Your task to perform on an android device: Go to notification settings Image 0: 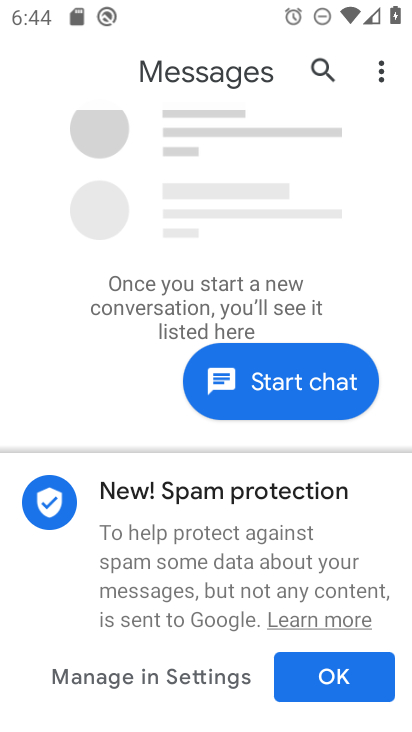
Step 0: press home button
Your task to perform on an android device: Go to notification settings Image 1: 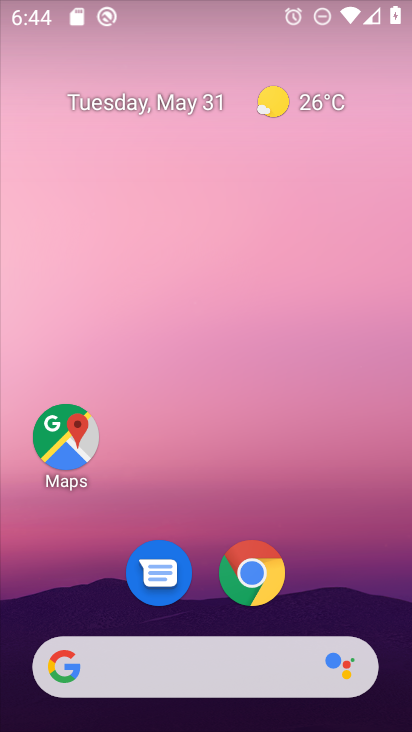
Step 1: drag from (395, 690) to (305, 22)
Your task to perform on an android device: Go to notification settings Image 2: 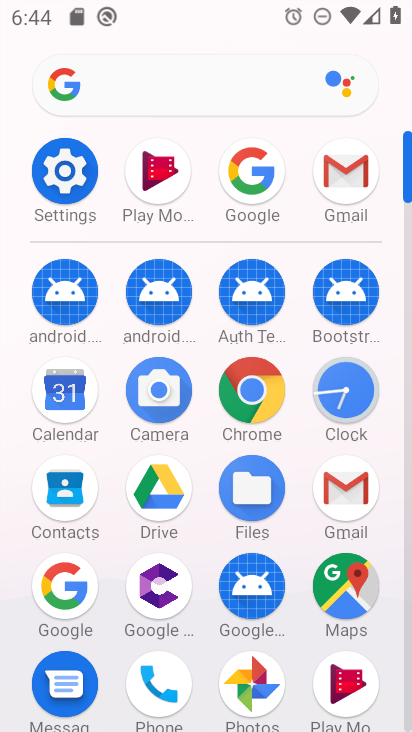
Step 2: click (47, 174)
Your task to perform on an android device: Go to notification settings Image 3: 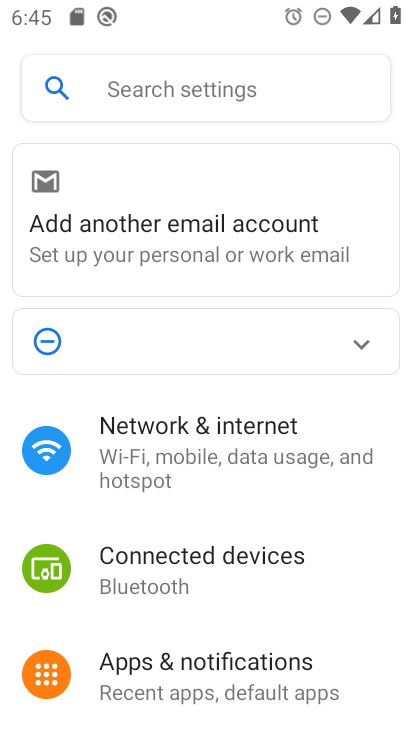
Step 3: click (259, 656)
Your task to perform on an android device: Go to notification settings Image 4: 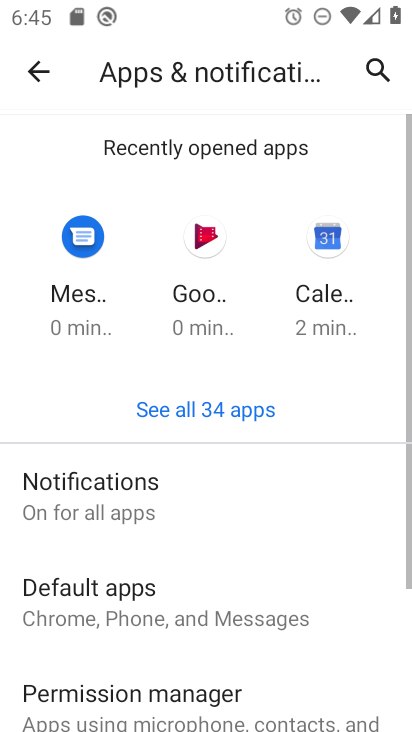
Step 4: click (223, 514)
Your task to perform on an android device: Go to notification settings Image 5: 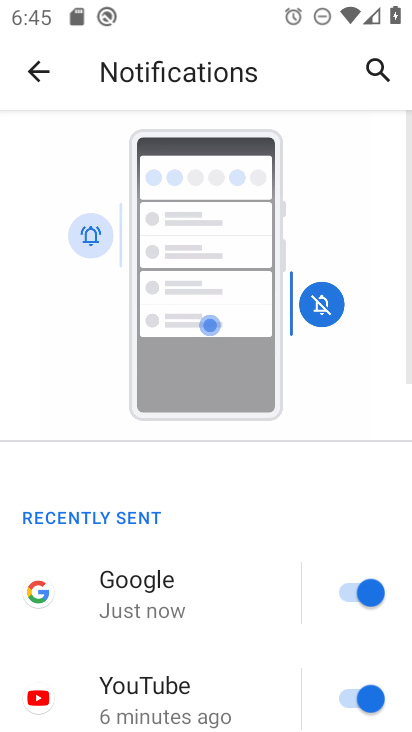
Step 5: task complete